Your task to perform on an android device: Open my contact list Image 0: 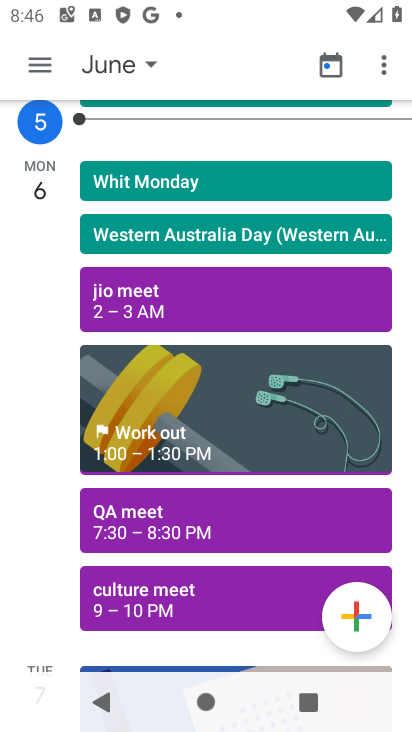
Step 0: press home button
Your task to perform on an android device: Open my contact list Image 1: 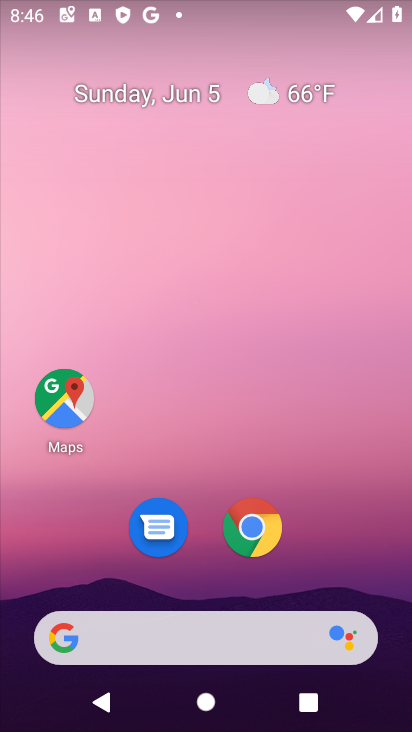
Step 1: drag from (213, 556) to (188, 159)
Your task to perform on an android device: Open my contact list Image 2: 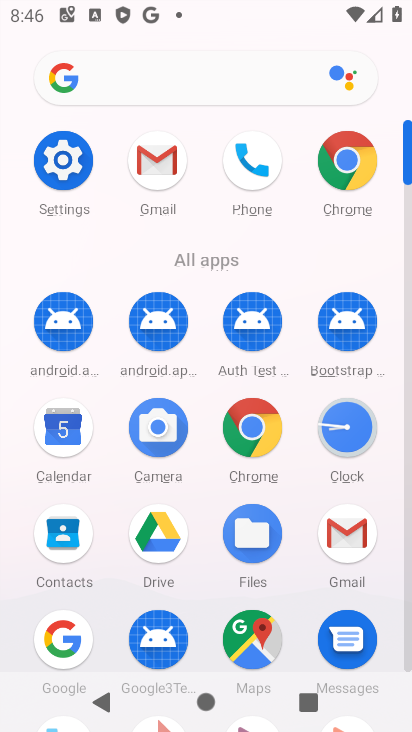
Step 2: click (54, 542)
Your task to perform on an android device: Open my contact list Image 3: 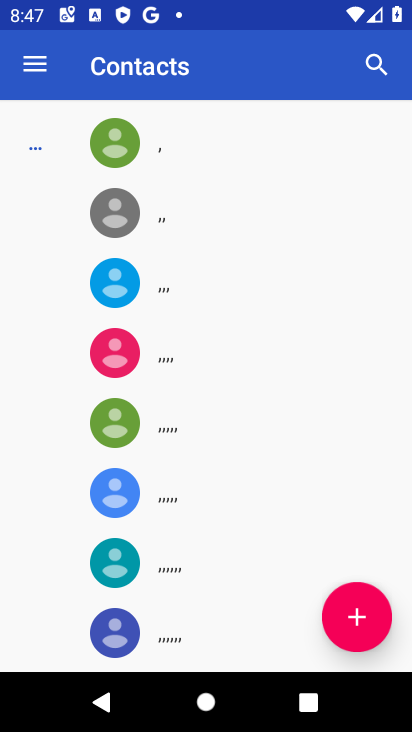
Step 3: task complete